Your task to perform on an android device: open a new tab in the chrome app Image 0: 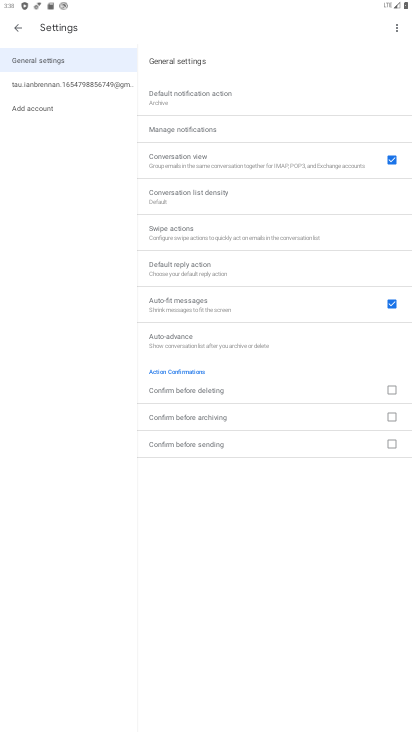
Step 0: press home button
Your task to perform on an android device: open a new tab in the chrome app Image 1: 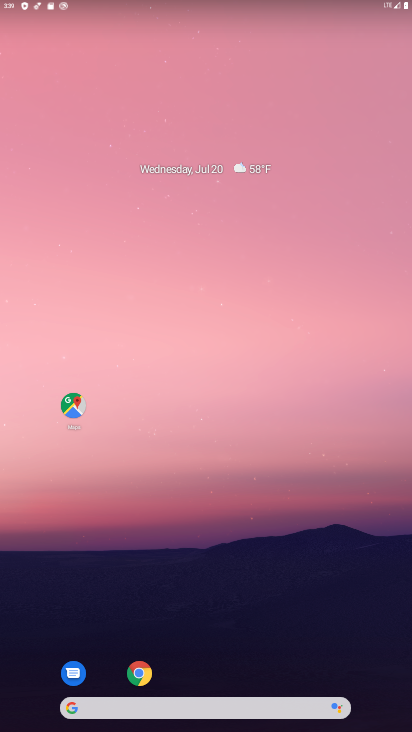
Step 1: drag from (185, 553) to (151, 261)
Your task to perform on an android device: open a new tab in the chrome app Image 2: 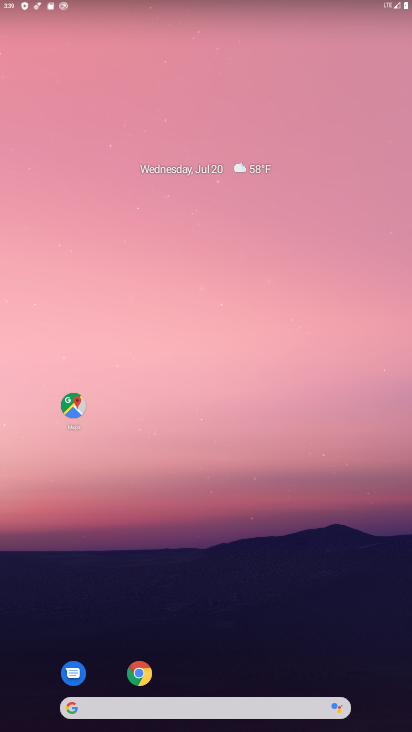
Step 2: click (135, 665)
Your task to perform on an android device: open a new tab in the chrome app Image 3: 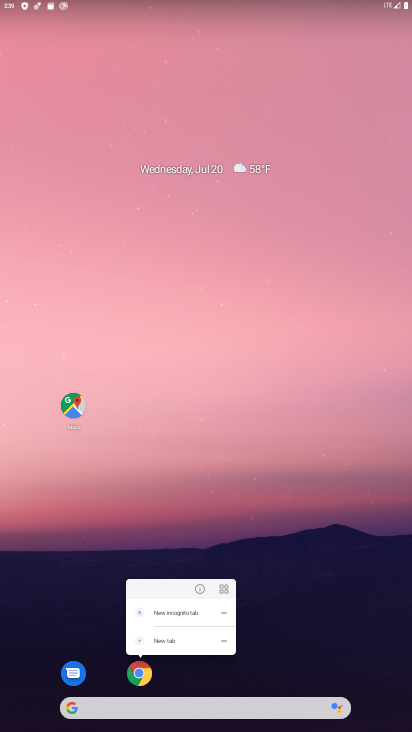
Step 3: click (139, 671)
Your task to perform on an android device: open a new tab in the chrome app Image 4: 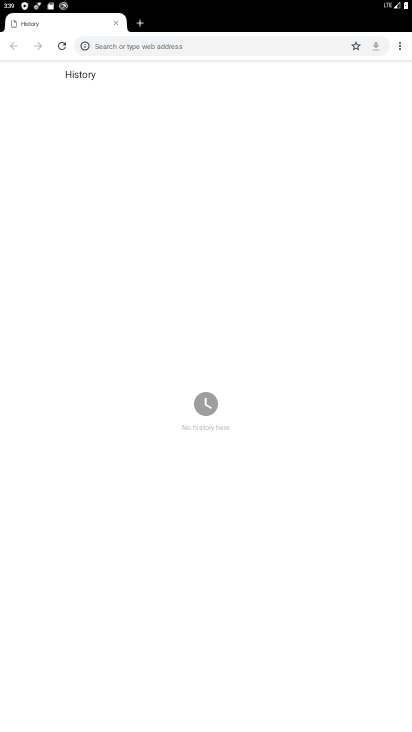
Step 4: click (398, 48)
Your task to perform on an android device: open a new tab in the chrome app Image 5: 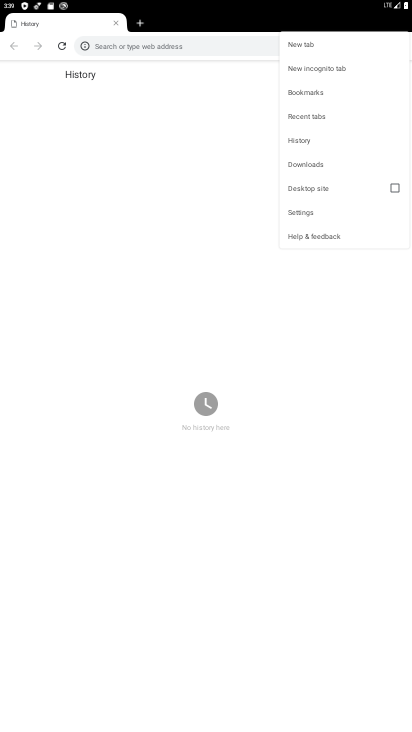
Step 5: click (163, 86)
Your task to perform on an android device: open a new tab in the chrome app Image 6: 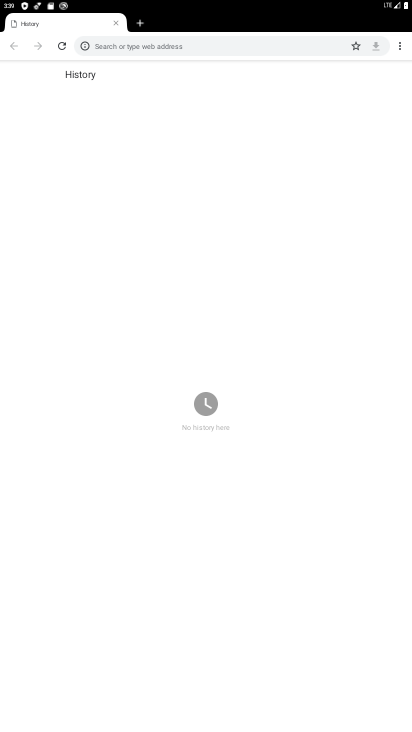
Step 6: click (139, 23)
Your task to perform on an android device: open a new tab in the chrome app Image 7: 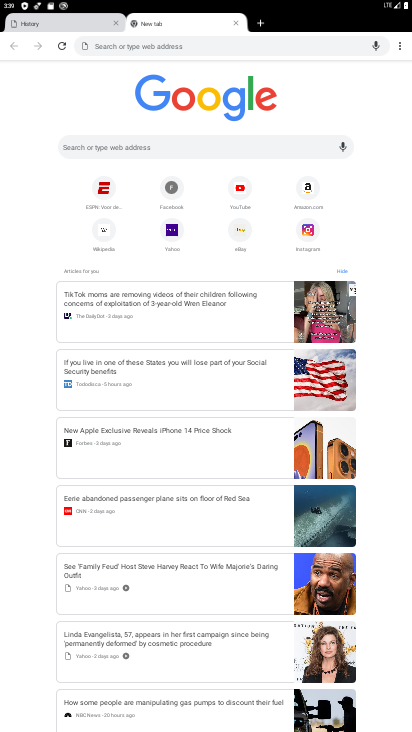
Step 7: task complete